Your task to perform on an android device: open chrome and create a bookmark for the current page Image 0: 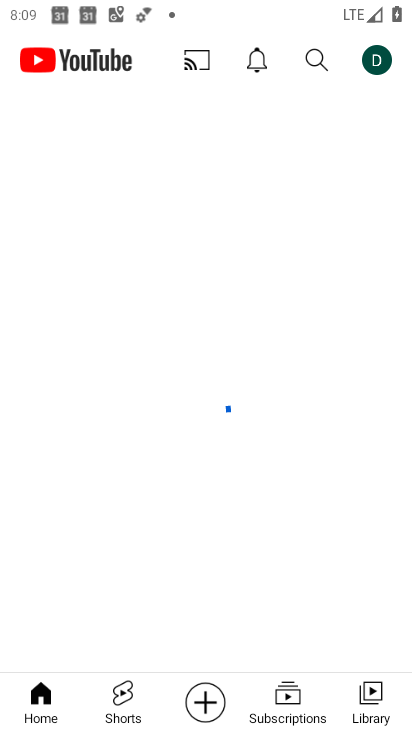
Step 0: press home button
Your task to perform on an android device: open chrome and create a bookmark for the current page Image 1: 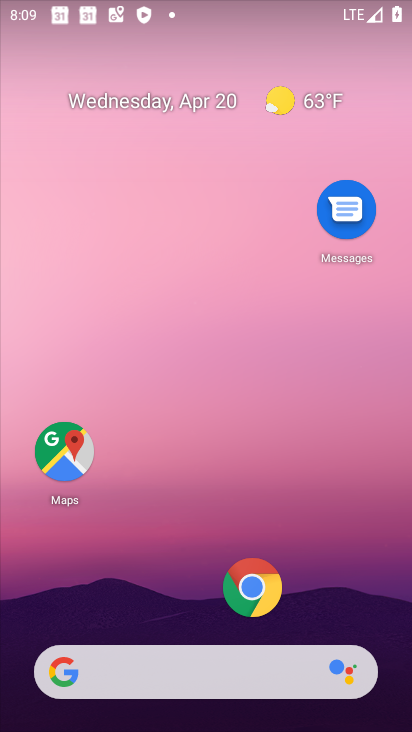
Step 1: drag from (188, 661) to (296, 170)
Your task to perform on an android device: open chrome and create a bookmark for the current page Image 2: 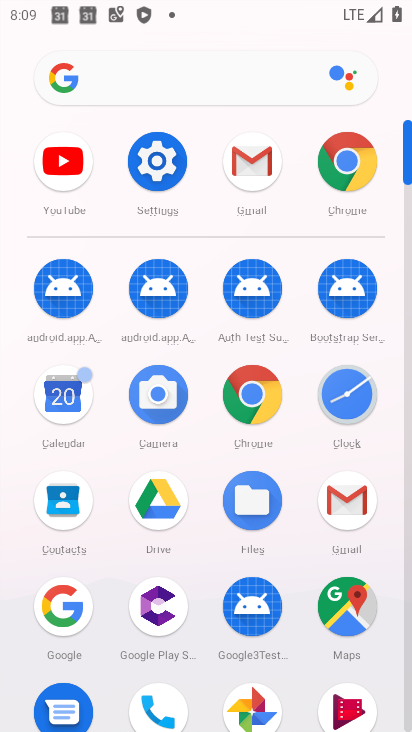
Step 2: click (343, 167)
Your task to perform on an android device: open chrome and create a bookmark for the current page Image 3: 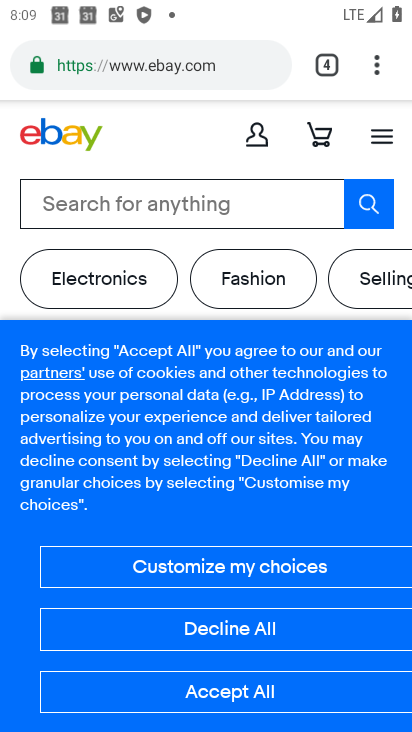
Step 3: click (372, 75)
Your task to perform on an android device: open chrome and create a bookmark for the current page Image 4: 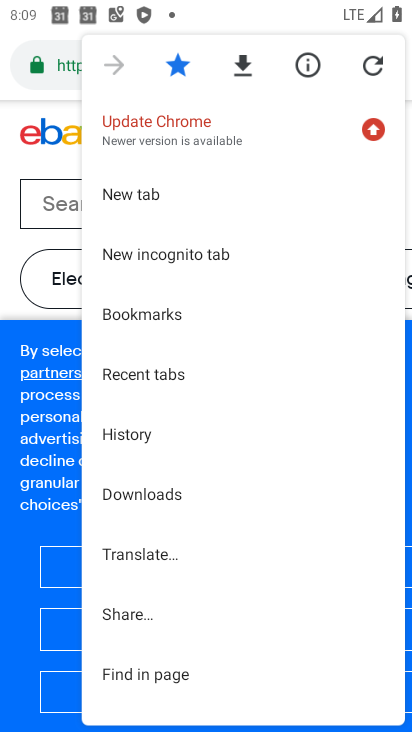
Step 4: click (138, 192)
Your task to perform on an android device: open chrome and create a bookmark for the current page Image 5: 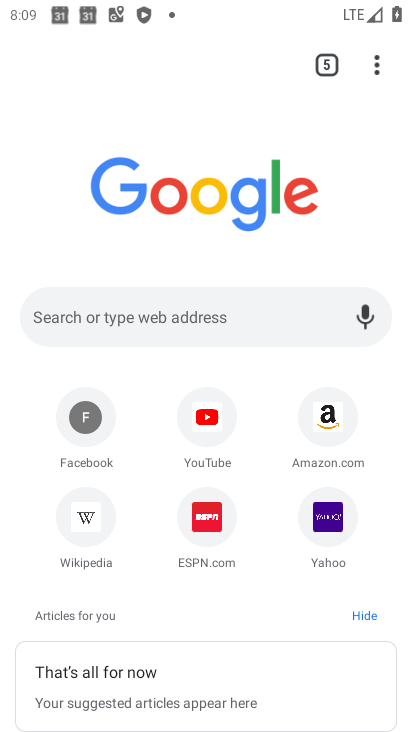
Step 5: click (367, 75)
Your task to perform on an android device: open chrome and create a bookmark for the current page Image 6: 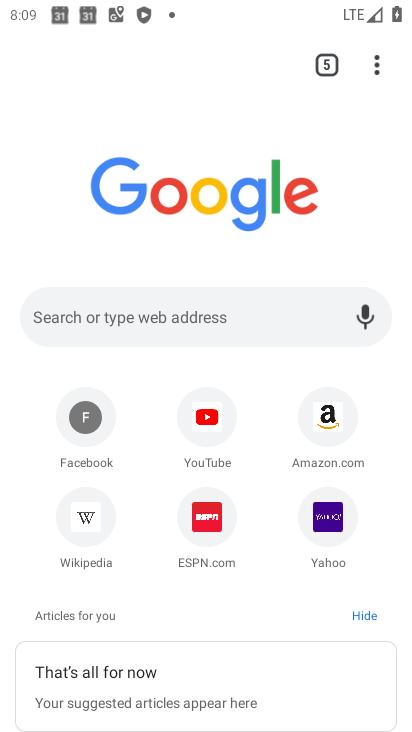
Step 6: click (367, 75)
Your task to perform on an android device: open chrome and create a bookmark for the current page Image 7: 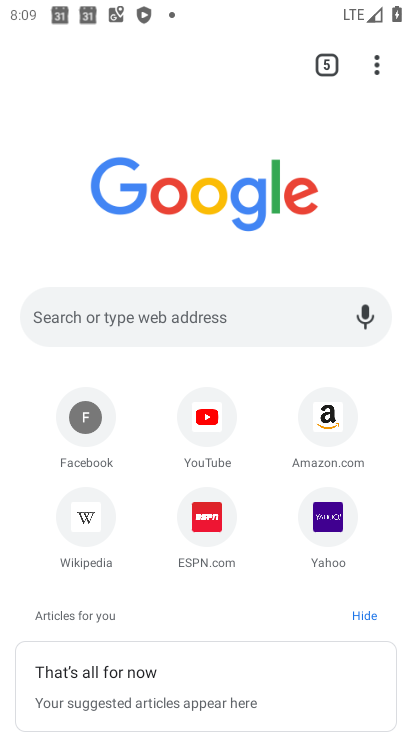
Step 7: click (371, 75)
Your task to perform on an android device: open chrome and create a bookmark for the current page Image 8: 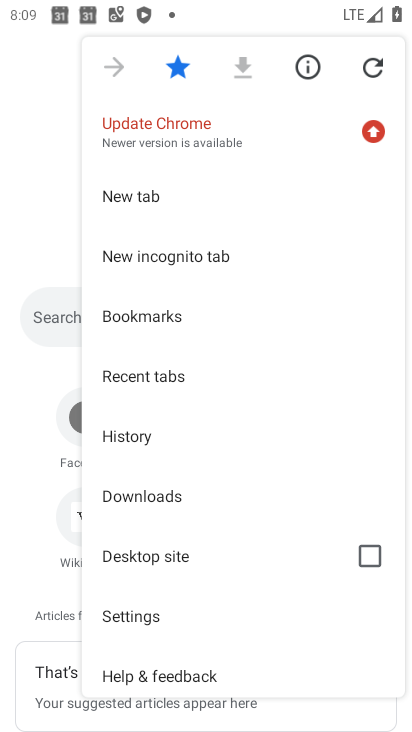
Step 8: task complete